Your task to perform on an android device: Show me the alarms in the clock app Image 0: 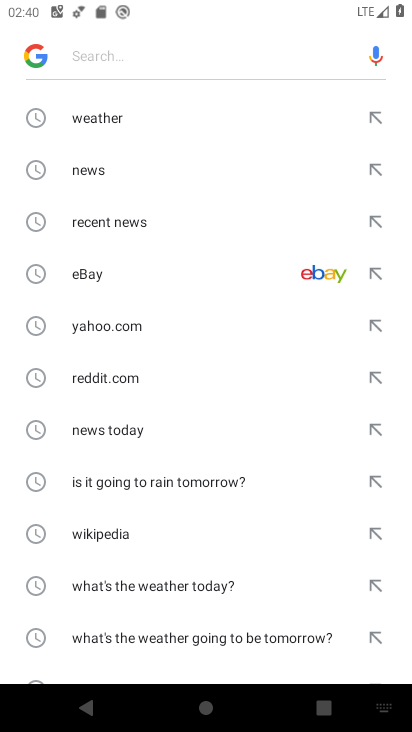
Step 0: press home button
Your task to perform on an android device: Show me the alarms in the clock app Image 1: 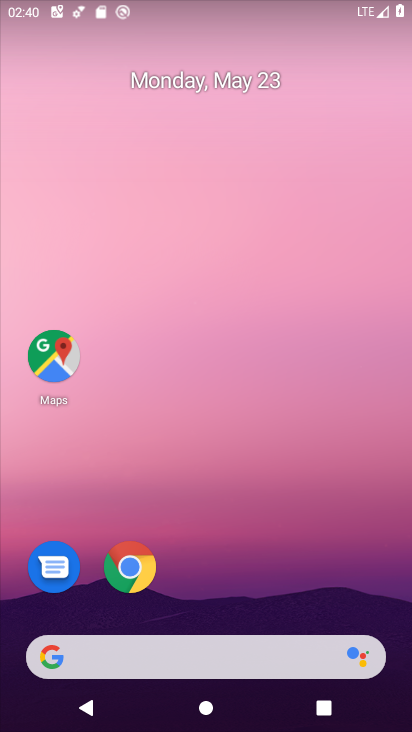
Step 1: drag from (260, 564) to (275, 185)
Your task to perform on an android device: Show me the alarms in the clock app Image 2: 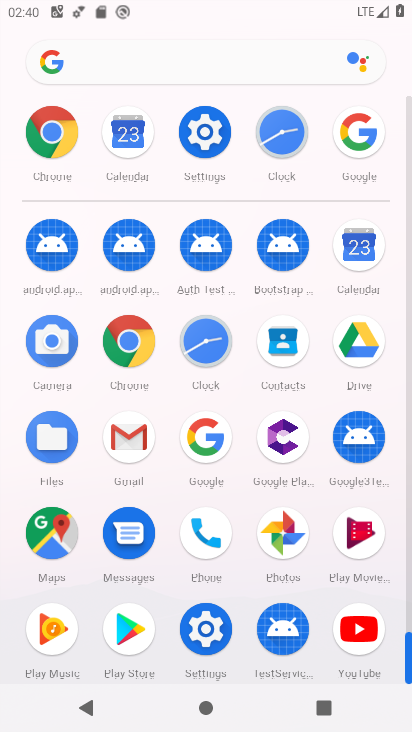
Step 2: click (210, 333)
Your task to perform on an android device: Show me the alarms in the clock app Image 3: 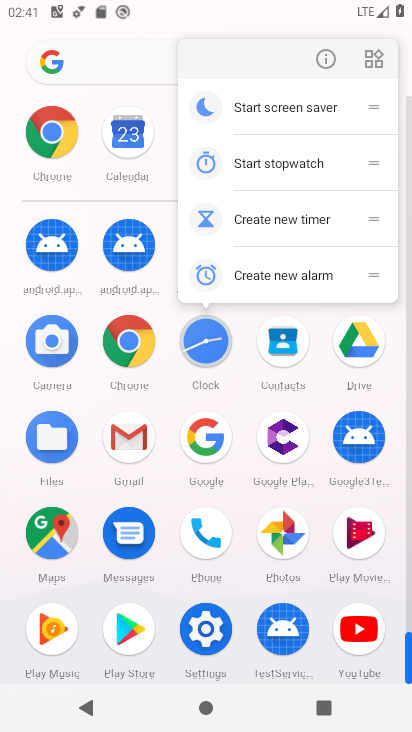
Step 3: click (201, 341)
Your task to perform on an android device: Show me the alarms in the clock app Image 4: 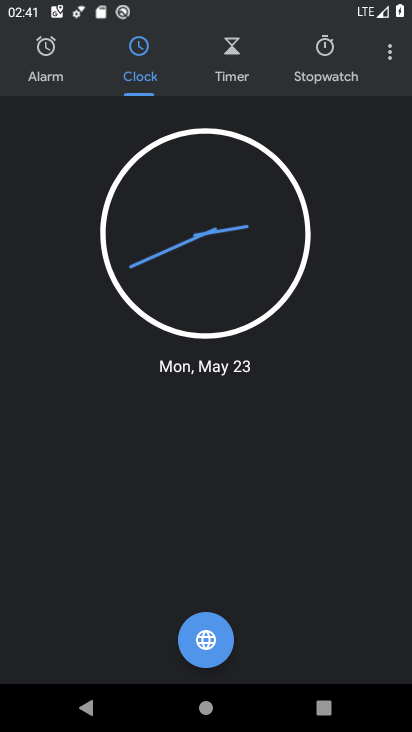
Step 4: click (45, 90)
Your task to perform on an android device: Show me the alarms in the clock app Image 5: 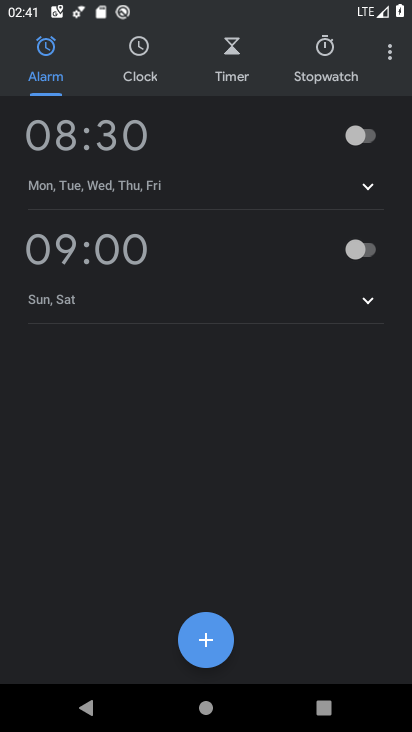
Step 5: task complete